Your task to perform on an android device: toggle javascript in the chrome app Image 0: 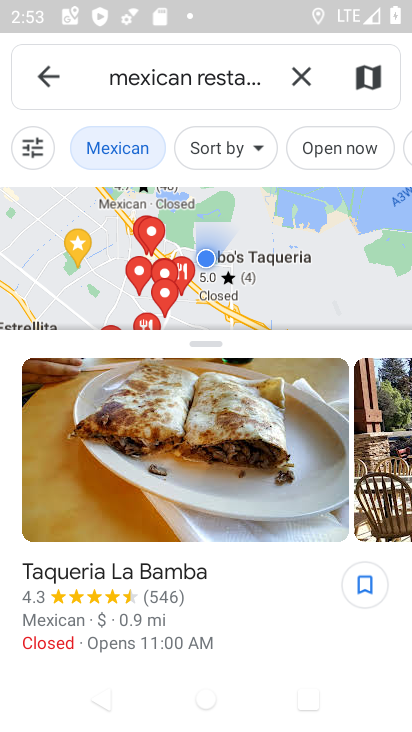
Step 0: press back button
Your task to perform on an android device: toggle javascript in the chrome app Image 1: 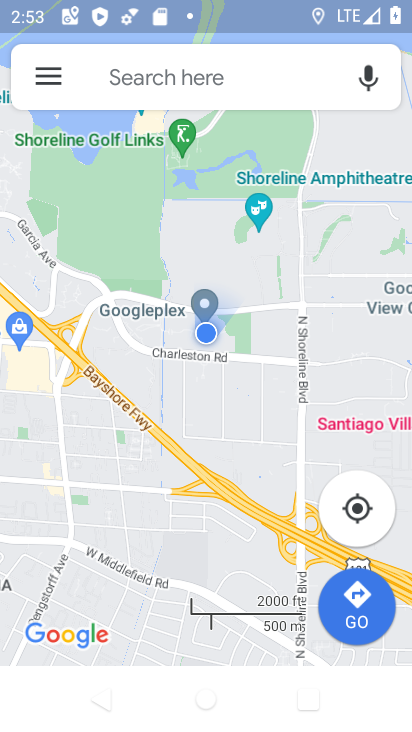
Step 1: press back button
Your task to perform on an android device: toggle javascript in the chrome app Image 2: 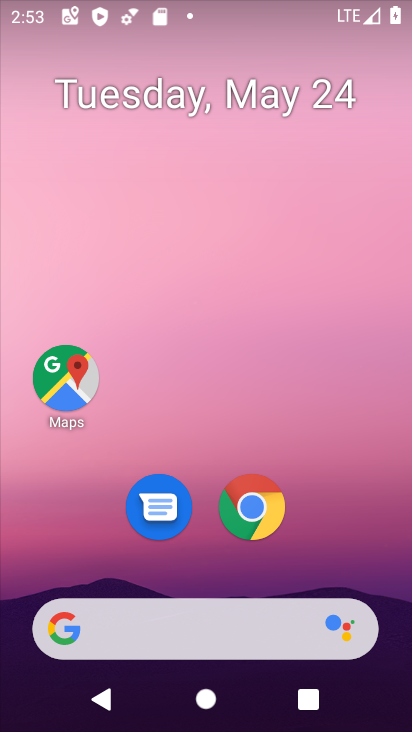
Step 2: click (252, 493)
Your task to perform on an android device: toggle javascript in the chrome app Image 3: 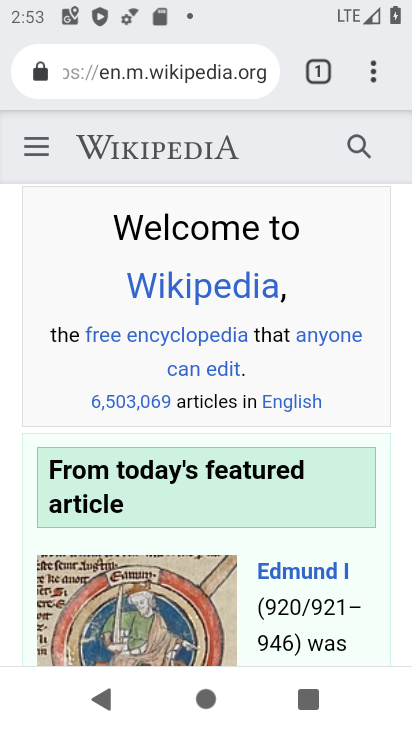
Step 3: drag from (371, 66) to (146, 495)
Your task to perform on an android device: toggle javascript in the chrome app Image 4: 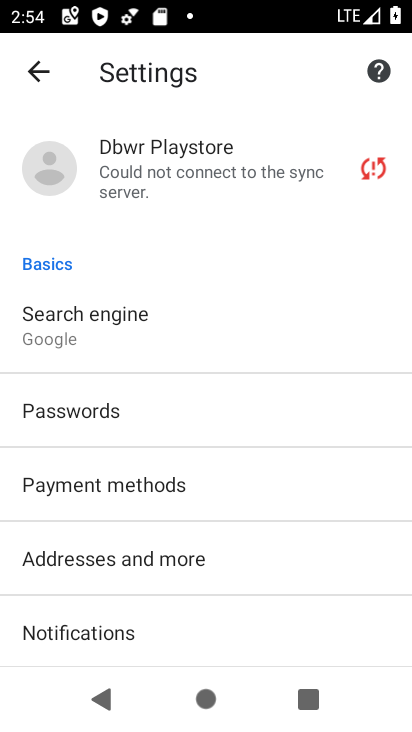
Step 4: drag from (134, 573) to (250, 158)
Your task to perform on an android device: toggle javascript in the chrome app Image 5: 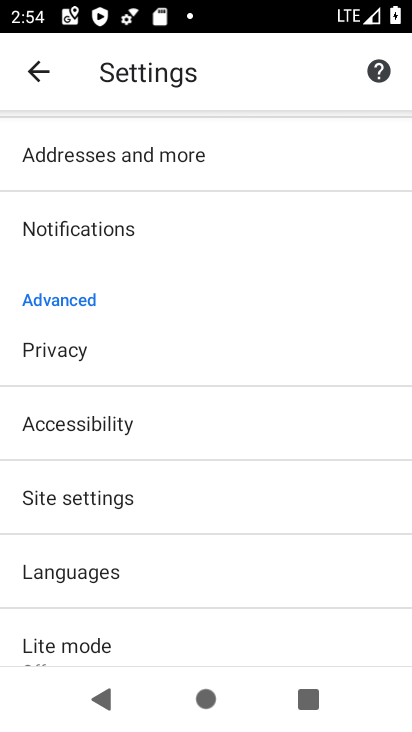
Step 5: click (72, 494)
Your task to perform on an android device: toggle javascript in the chrome app Image 6: 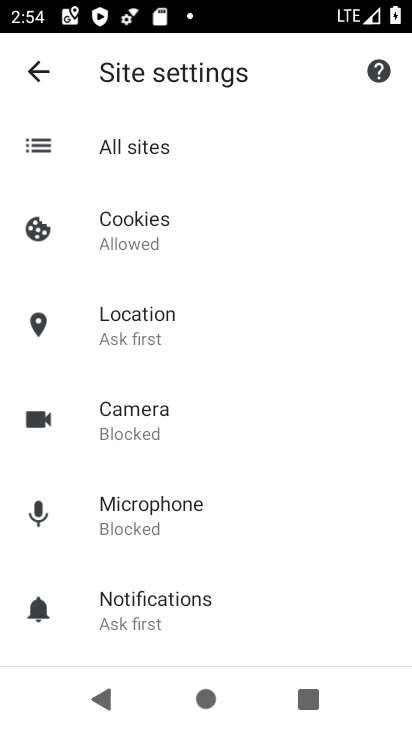
Step 6: drag from (161, 623) to (260, 95)
Your task to perform on an android device: toggle javascript in the chrome app Image 7: 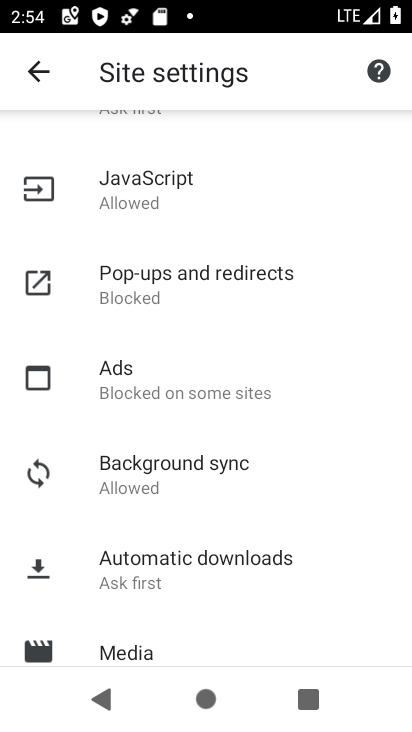
Step 7: click (139, 183)
Your task to perform on an android device: toggle javascript in the chrome app Image 8: 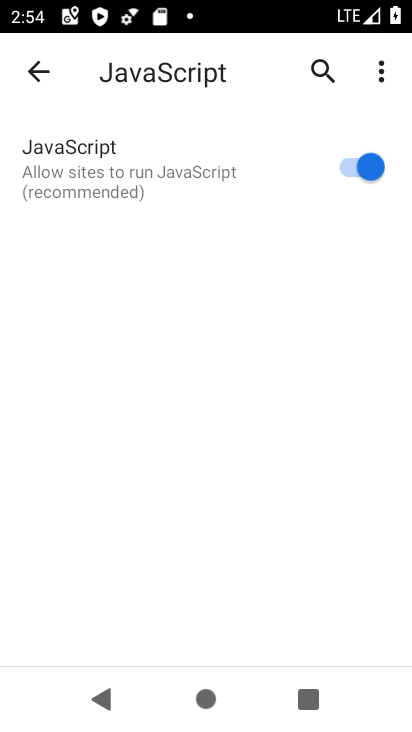
Step 8: click (364, 166)
Your task to perform on an android device: toggle javascript in the chrome app Image 9: 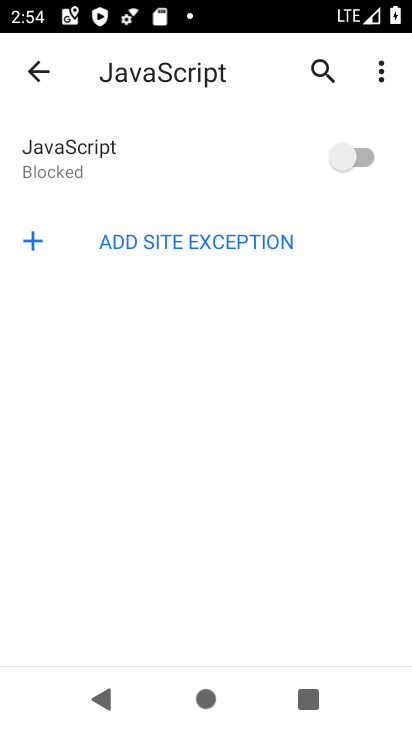
Step 9: task complete